Your task to perform on an android device: see creations saved in the google photos Image 0: 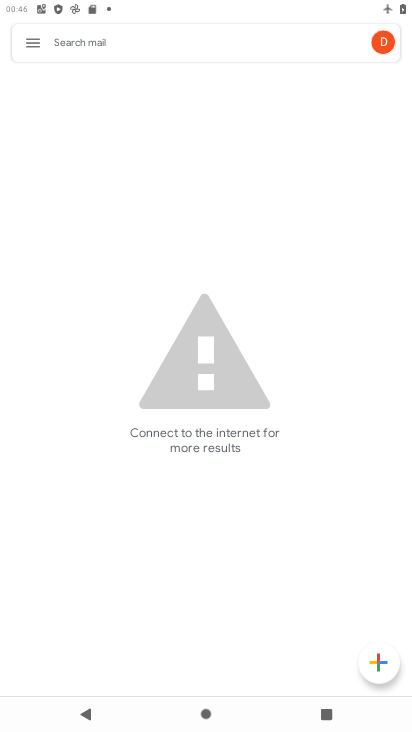
Step 0: press home button
Your task to perform on an android device: see creations saved in the google photos Image 1: 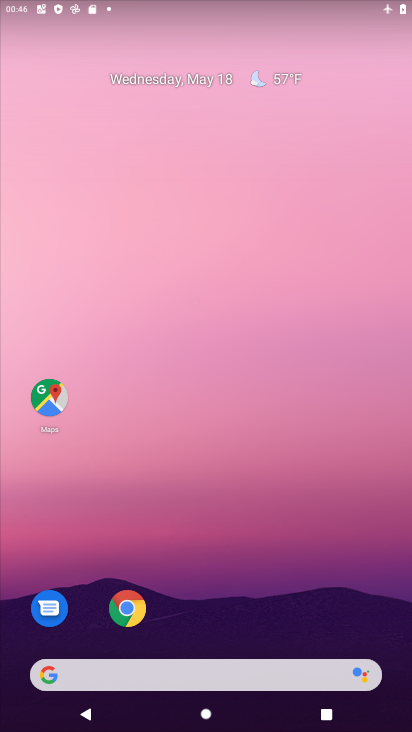
Step 1: drag from (224, 501) to (119, 27)
Your task to perform on an android device: see creations saved in the google photos Image 2: 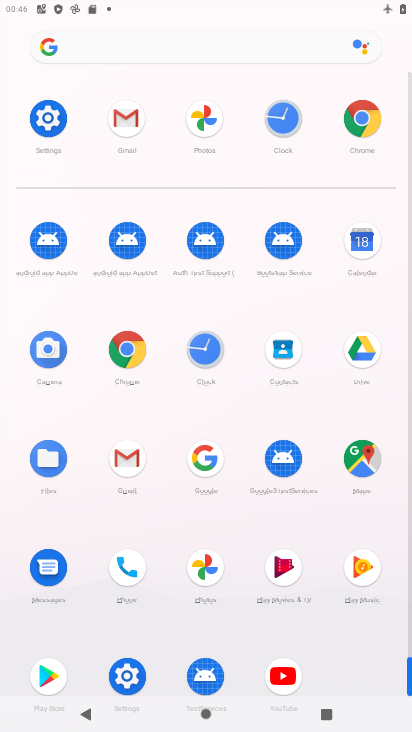
Step 2: click (201, 121)
Your task to perform on an android device: see creations saved in the google photos Image 3: 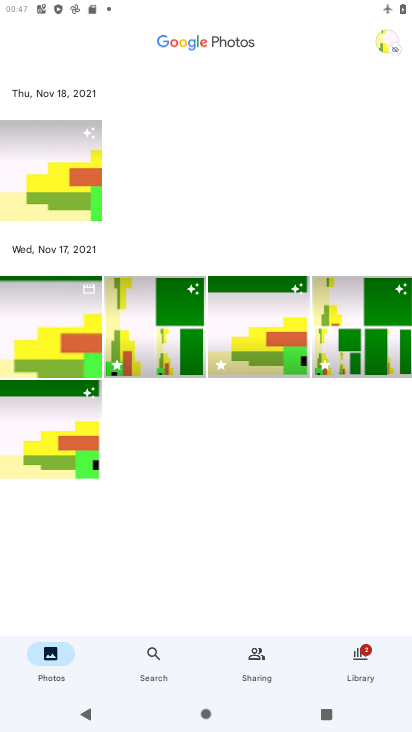
Step 3: click (147, 647)
Your task to perform on an android device: see creations saved in the google photos Image 4: 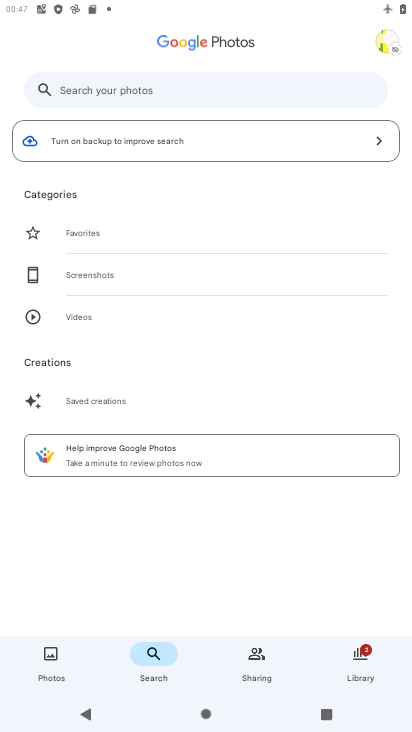
Step 4: click (67, 396)
Your task to perform on an android device: see creations saved in the google photos Image 5: 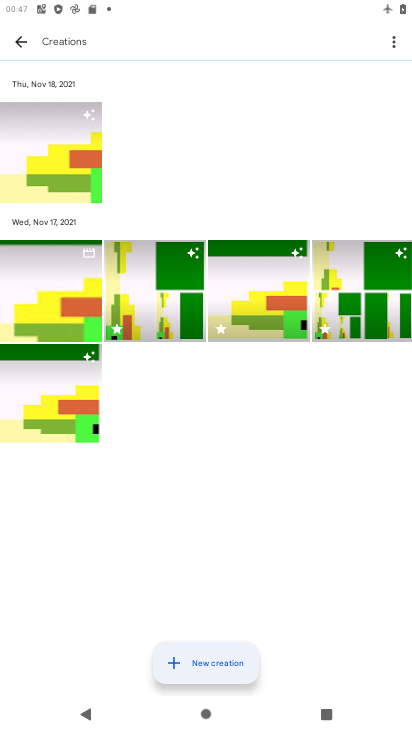
Step 5: task complete